Your task to perform on an android device: check battery use Image 0: 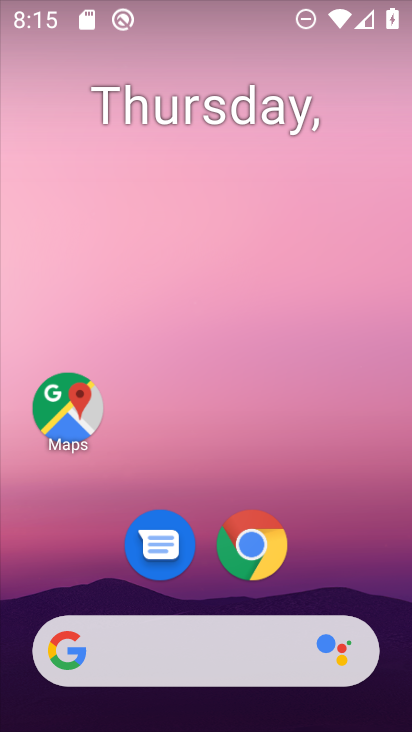
Step 0: drag from (327, 535) to (268, 131)
Your task to perform on an android device: check battery use Image 1: 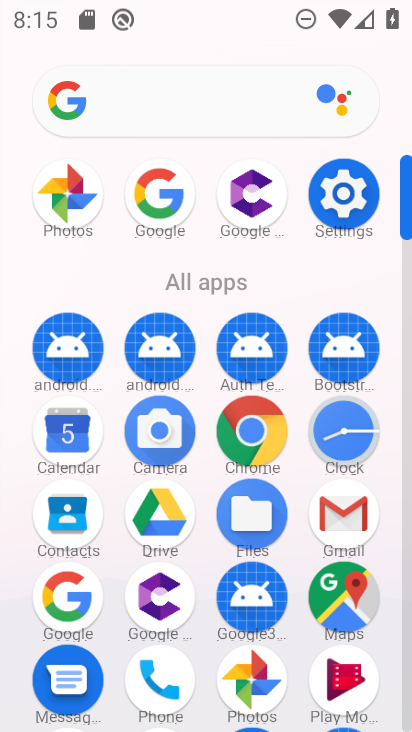
Step 1: click (342, 191)
Your task to perform on an android device: check battery use Image 2: 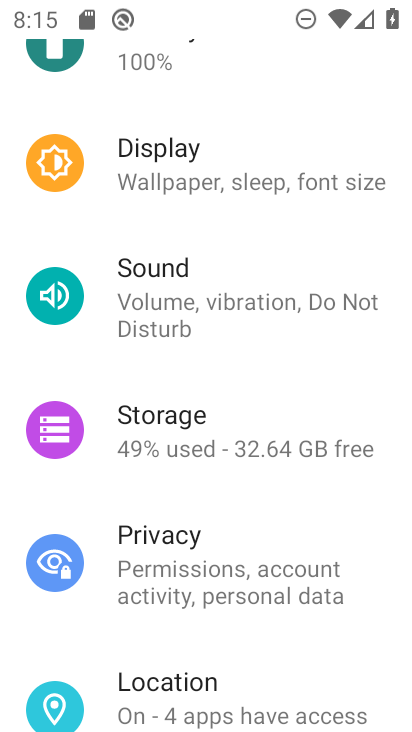
Step 2: drag from (241, 247) to (261, 383)
Your task to perform on an android device: check battery use Image 3: 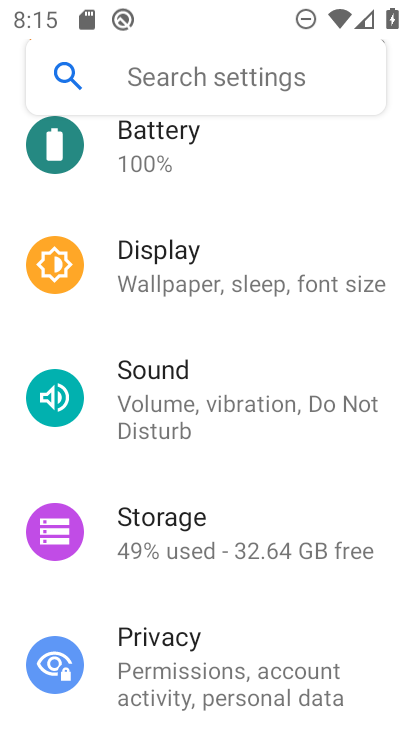
Step 3: drag from (234, 245) to (294, 356)
Your task to perform on an android device: check battery use Image 4: 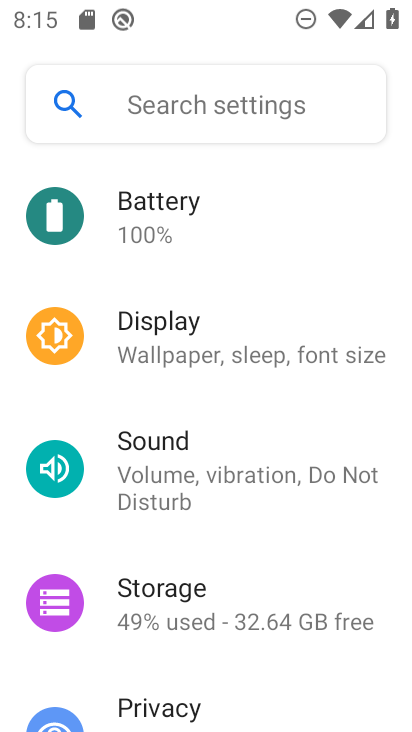
Step 4: click (189, 207)
Your task to perform on an android device: check battery use Image 5: 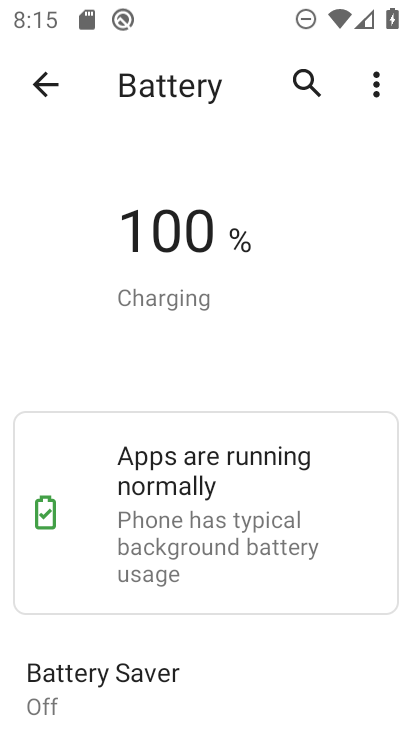
Step 5: click (375, 82)
Your task to perform on an android device: check battery use Image 6: 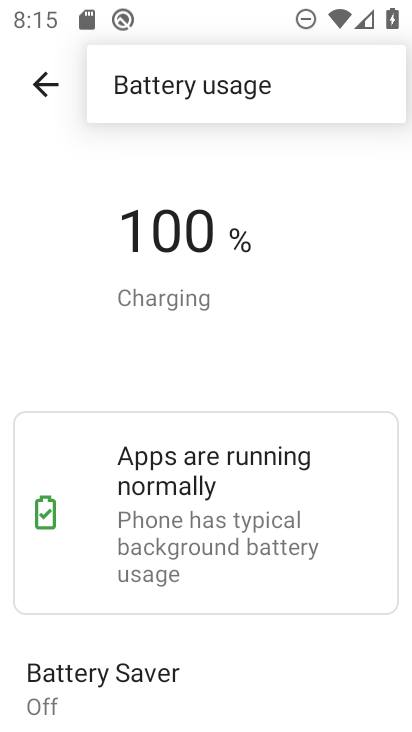
Step 6: click (256, 84)
Your task to perform on an android device: check battery use Image 7: 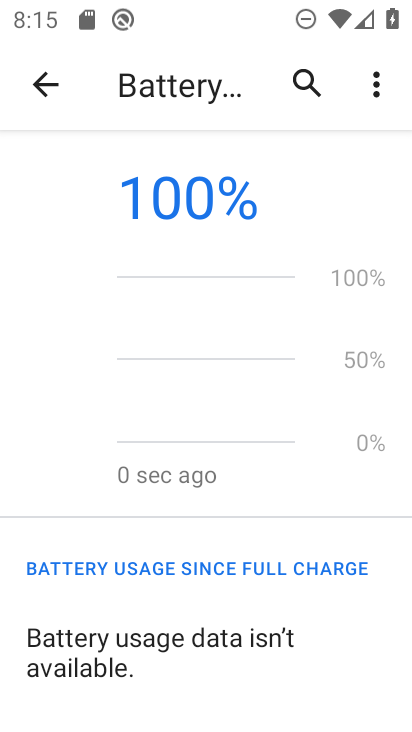
Step 7: task complete